Your task to perform on an android device: Clear the cart on ebay. Image 0: 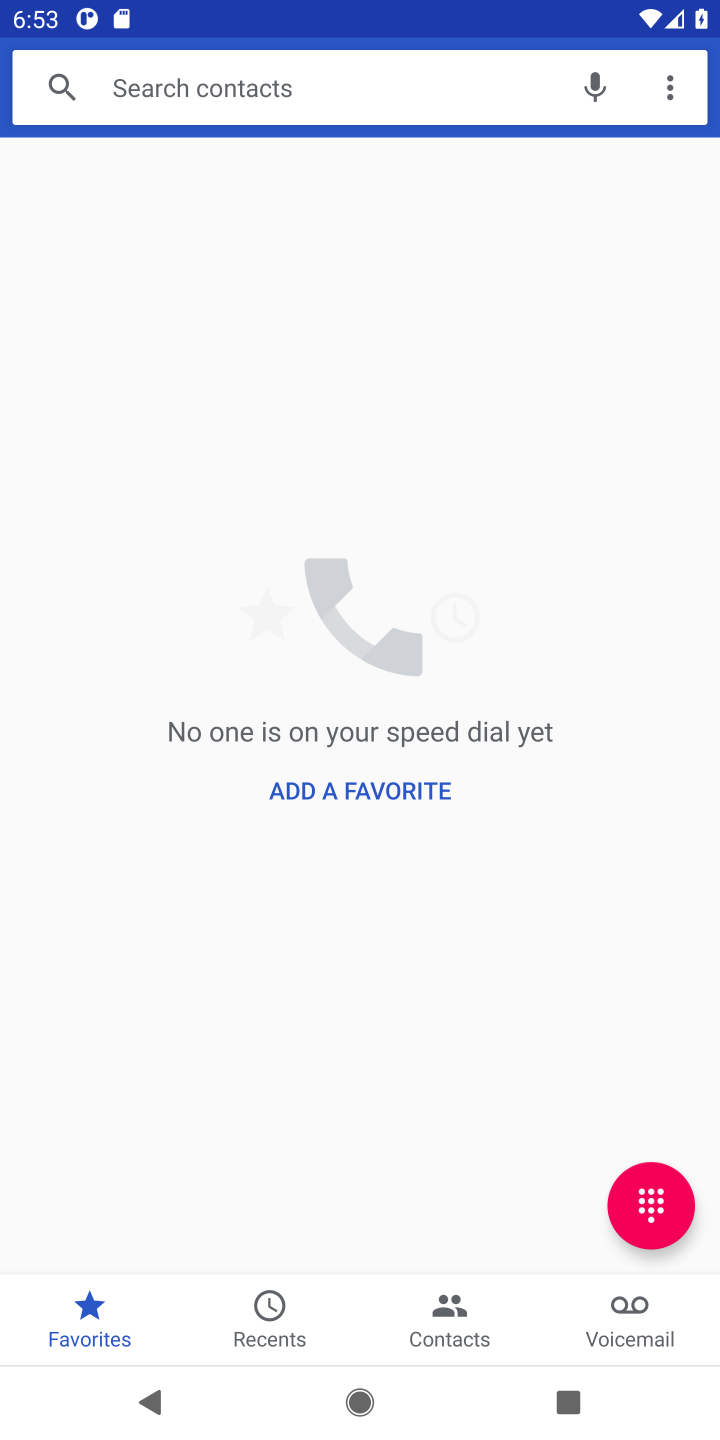
Step 0: press home button
Your task to perform on an android device: Clear the cart on ebay. Image 1: 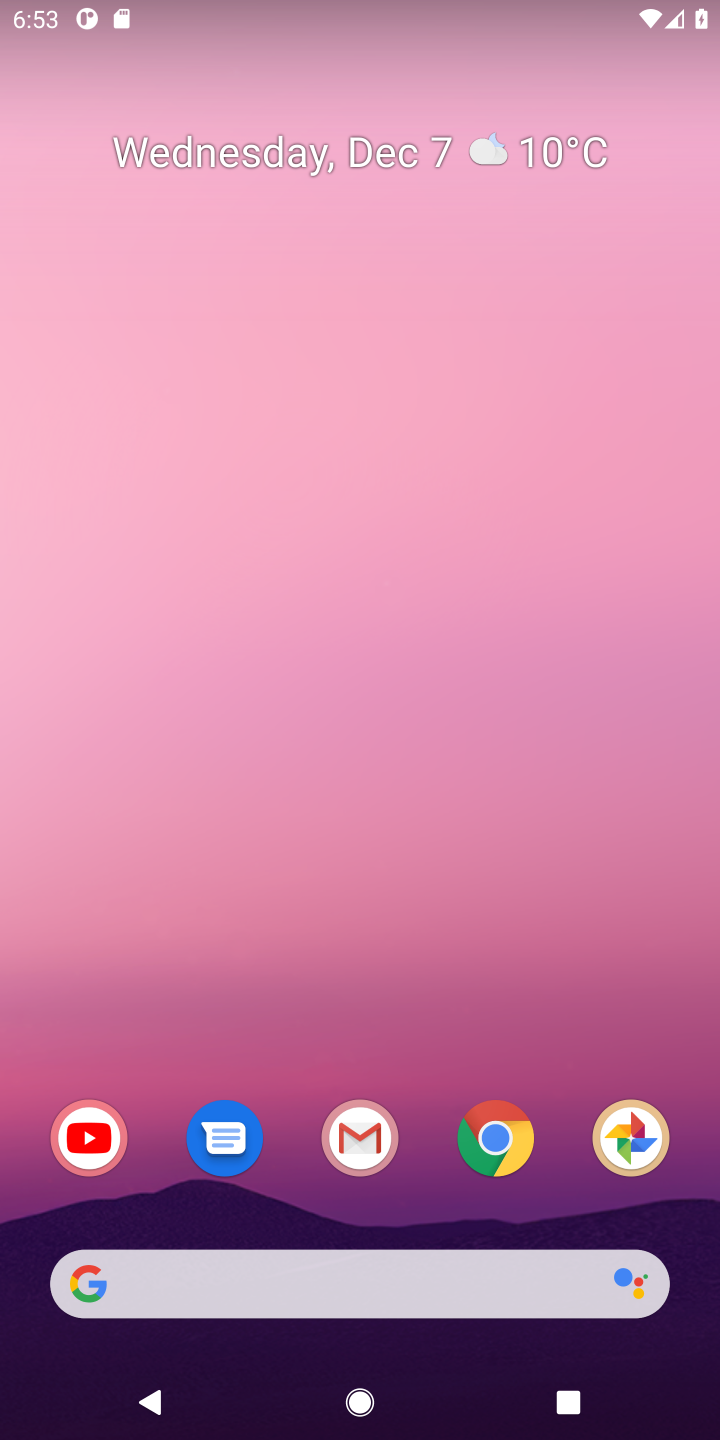
Step 1: click (147, 1288)
Your task to perform on an android device: Clear the cart on ebay. Image 2: 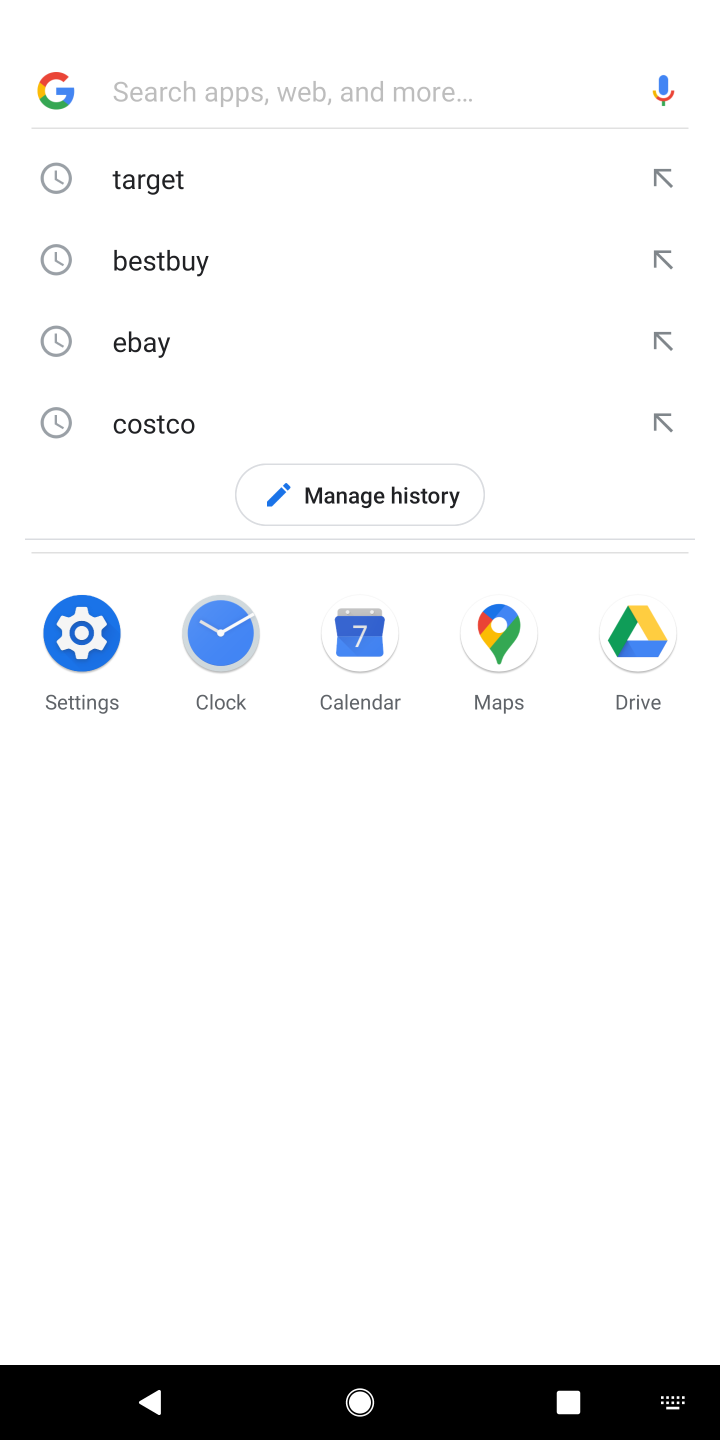
Step 2: click (160, 328)
Your task to perform on an android device: Clear the cart on ebay. Image 3: 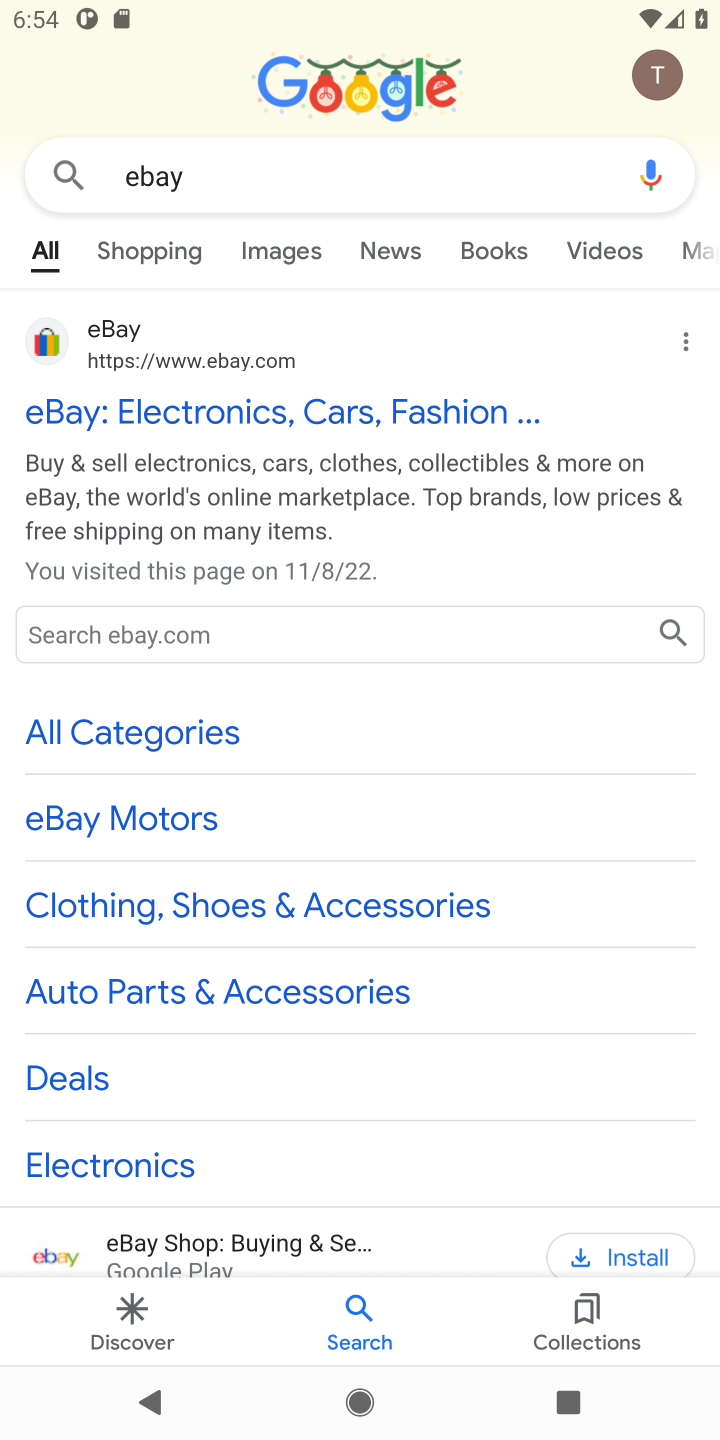
Step 3: click (298, 407)
Your task to perform on an android device: Clear the cart on ebay. Image 4: 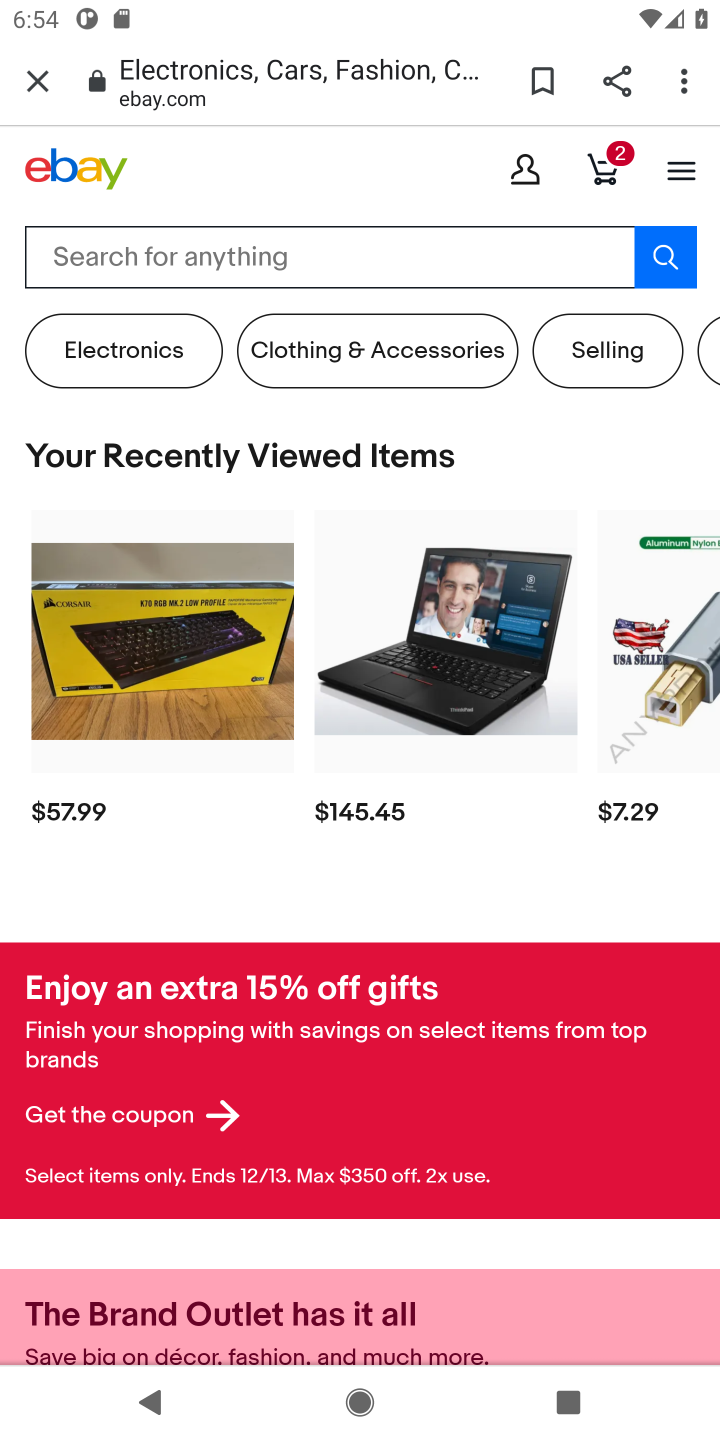
Step 4: click (615, 162)
Your task to perform on an android device: Clear the cart on ebay. Image 5: 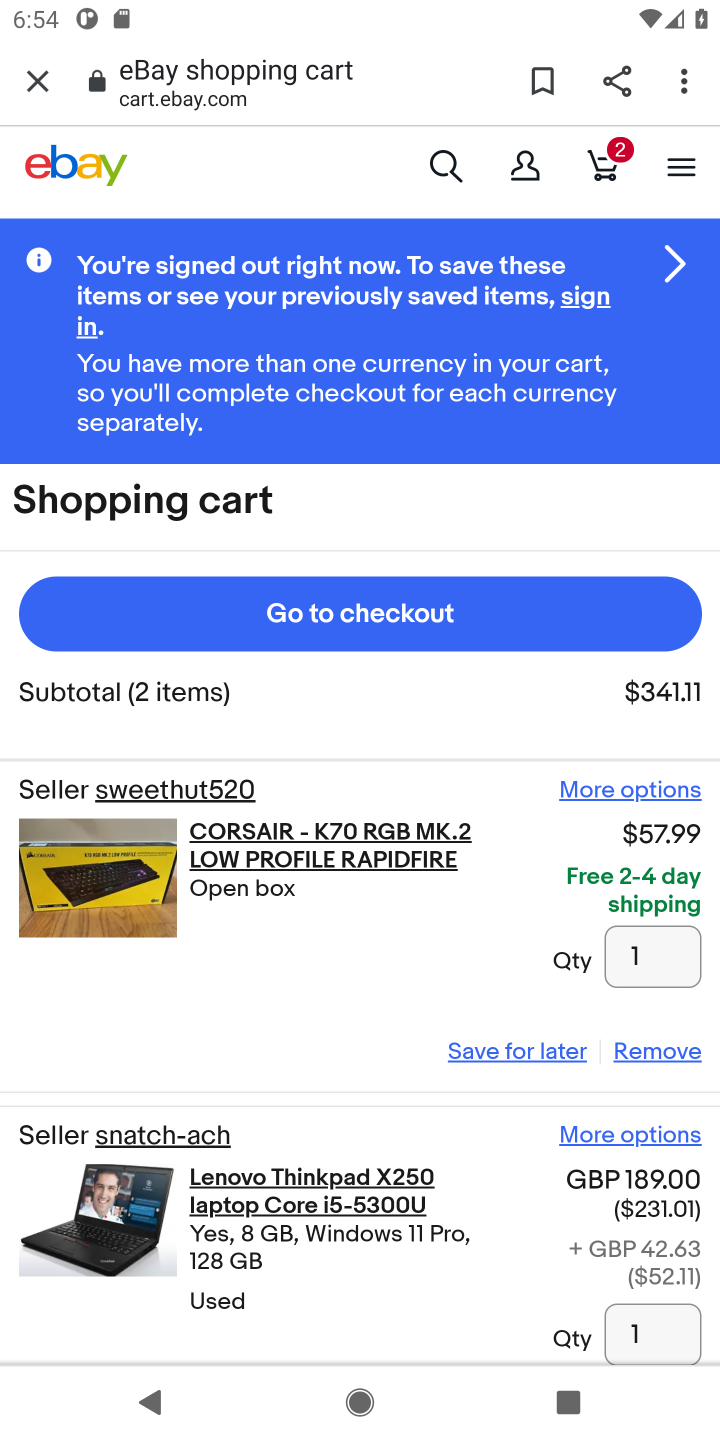
Step 5: click (642, 1049)
Your task to perform on an android device: Clear the cart on ebay. Image 6: 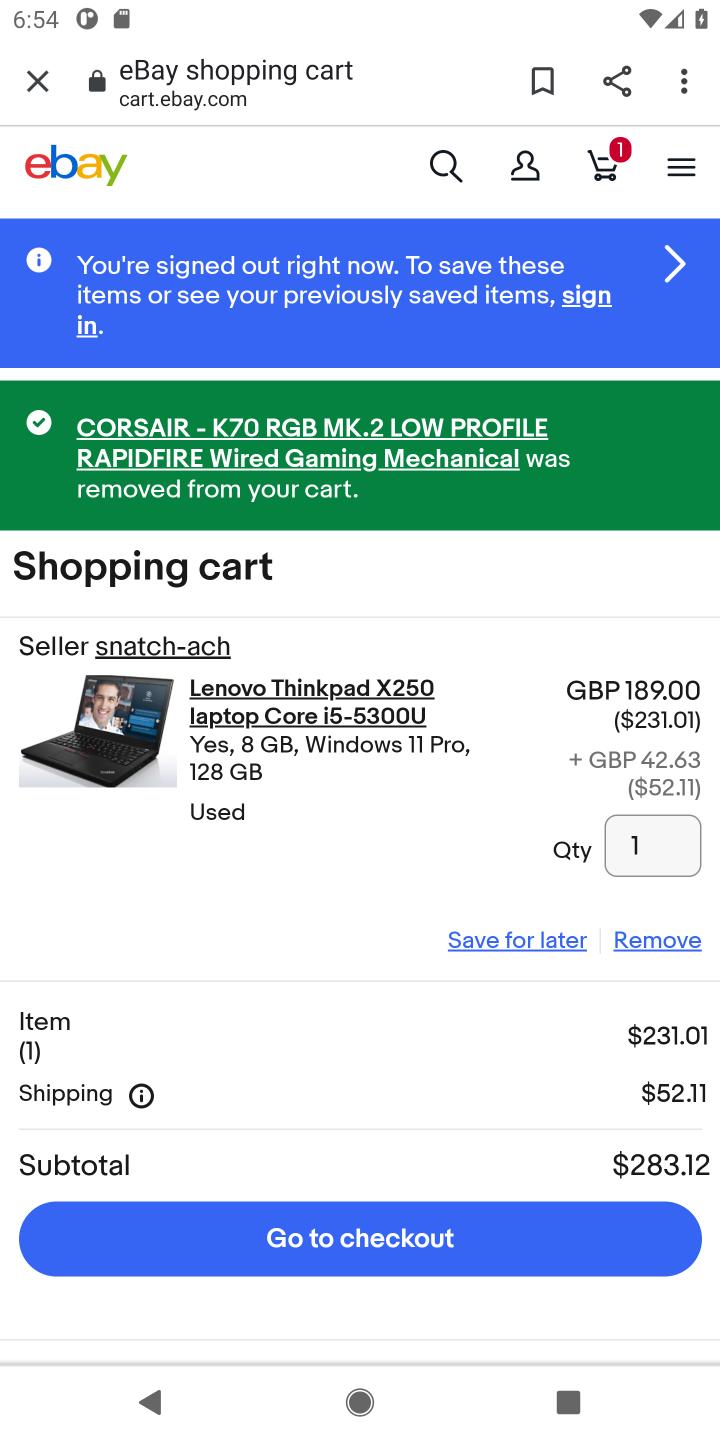
Step 6: click (635, 940)
Your task to perform on an android device: Clear the cart on ebay. Image 7: 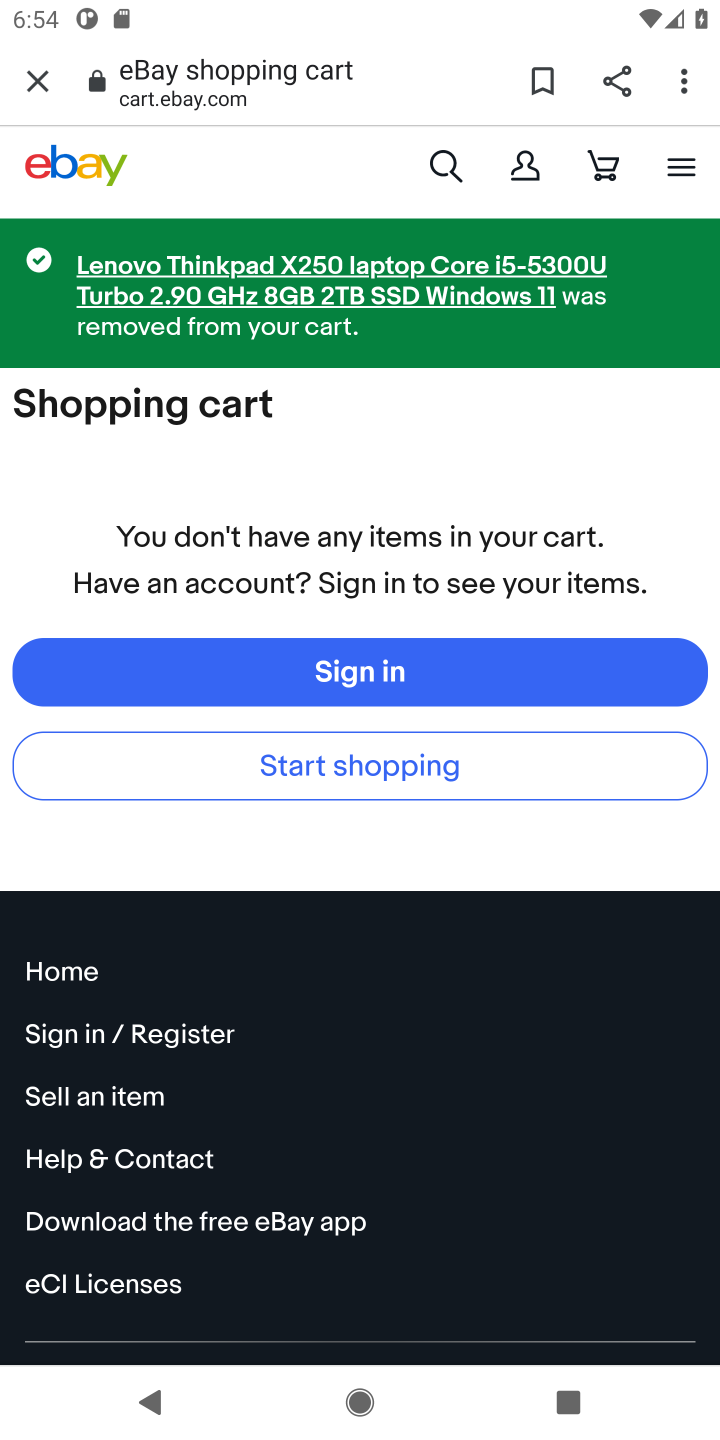
Step 7: task complete